Your task to perform on an android device: Open Google Image 0: 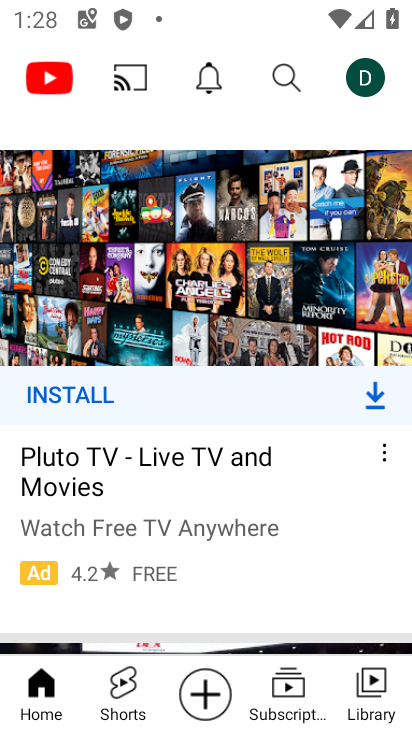
Step 0: press home button
Your task to perform on an android device: Open Google Image 1: 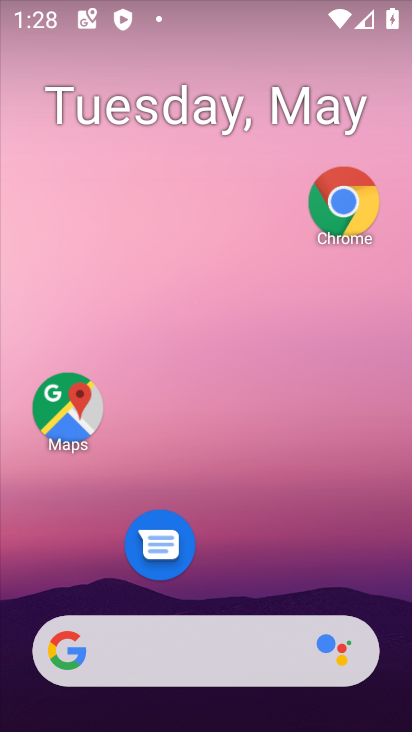
Step 1: click (177, 668)
Your task to perform on an android device: Open Google Image 2: 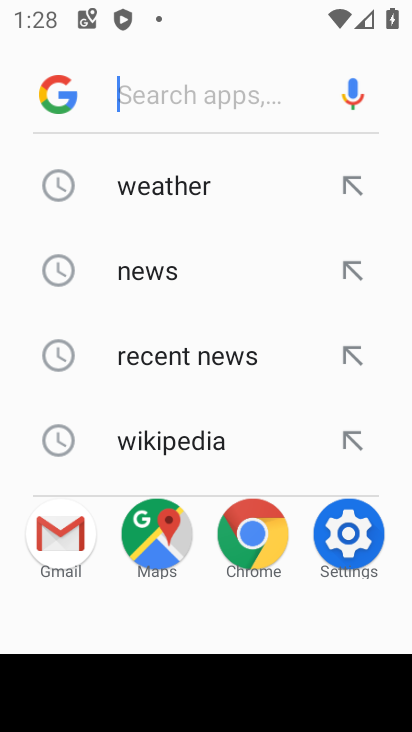
Step 2: task complete